Your task to perform on an android device: Go to Android settings Image 0: 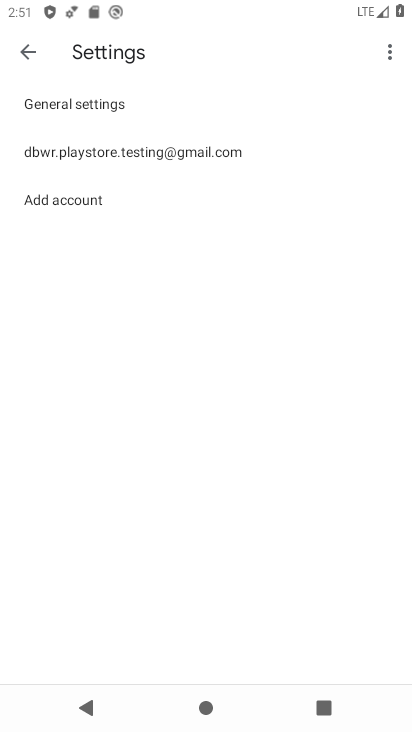
Step 0: press home button
Your task to perform on an android device: Go to Android settings Image 1: 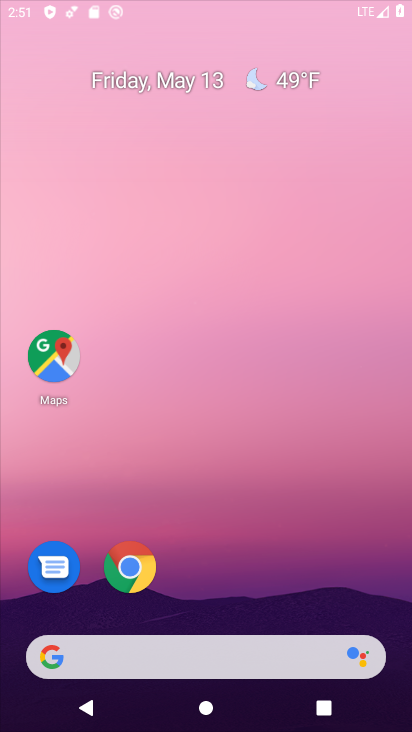
Step 1: drag from (266, 442) to (271, 550)
Your task to perform on an android device: Go to Android settings Image 2: 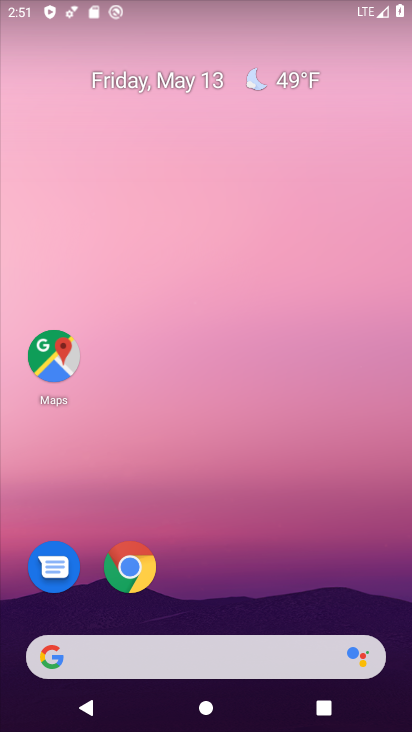
Step 2: drag from (230, 621) to (224, 56)
Your task to perform on an android device: Go to Android settings Image 3: 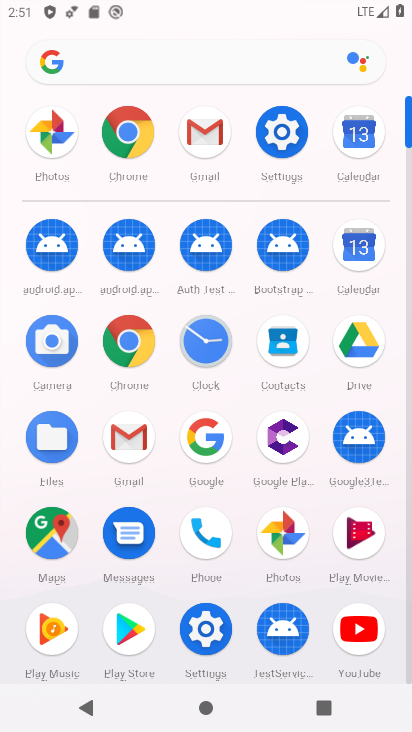
Step 3: click (214, 611)
Your task to perform on an android device: Go to Android settings Image 4: 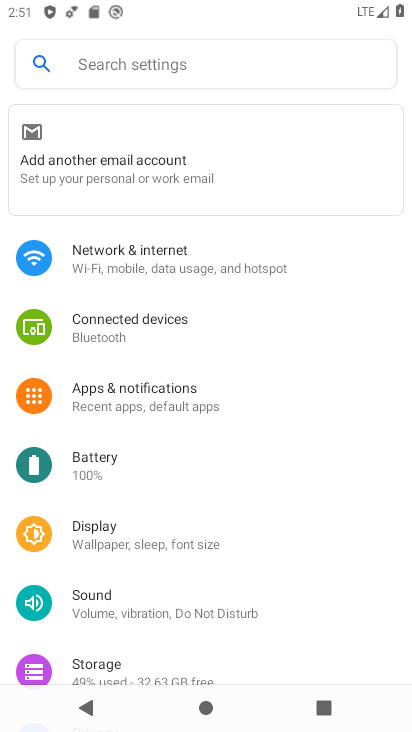
Step 4: drag from (284, 560) to (282, 244)
Your task to perform on an android device: Go to Android settings Image 5: 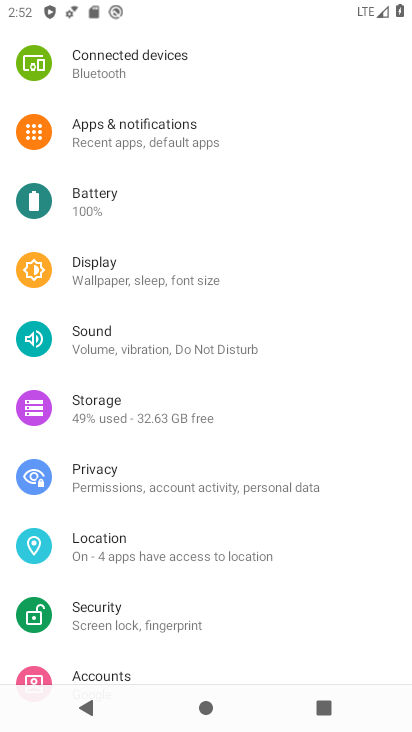
Step 5: drag from (189, 604) to (246, 45)
Your task to perform on an android device: Go to Android settings Image 6: 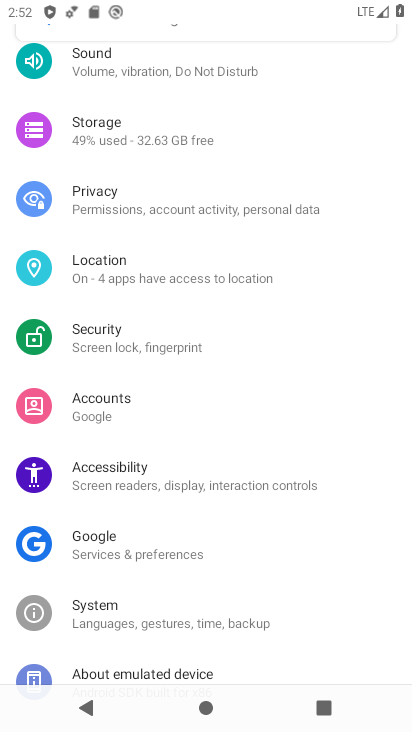
Step 6: click (150, 663)
Your task to perform on an android device: Go to Android settings Image 7: 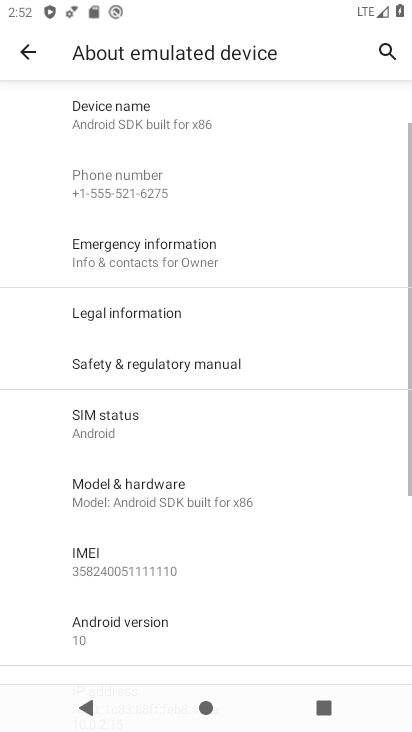
Step 7: task complete